Your task to perform on an android device: empty trash in google photos Image 0: 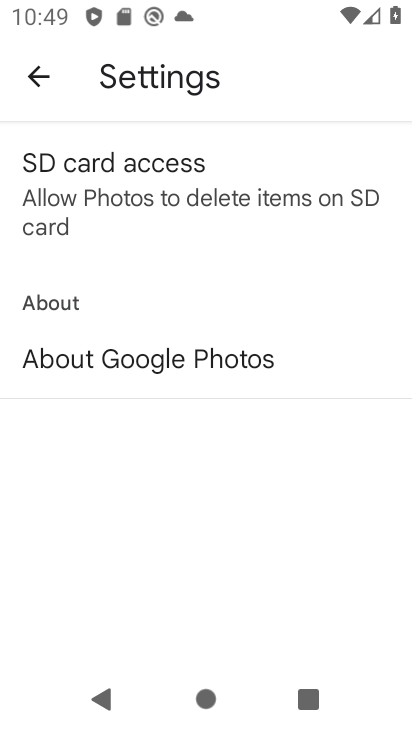
Step 0: press home button
Your task to perform on an android device: empty trash in google photos Image 1: 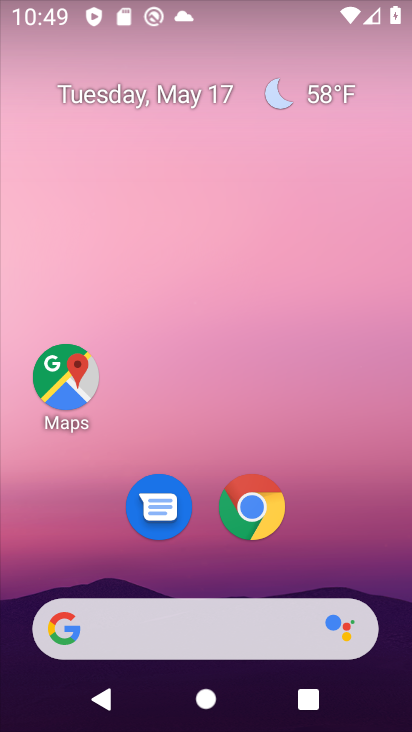
Step 1: drag from (297, 441) to (188, 63)
Your task to perform on an android device: empty trash in google photos Image 2: 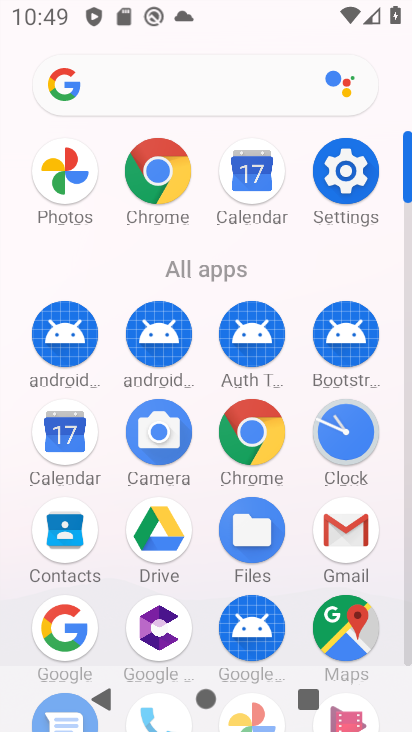
Step 2: click (63, 171)
Your task to perform on an android device: empty trash in google photos Image 3: 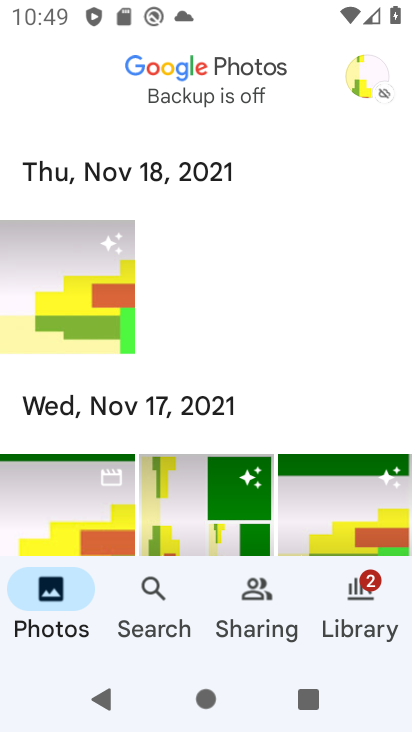
Step 3: click (347, 599)
Your task to perform on an android device: empty trash in google photos Image 4: 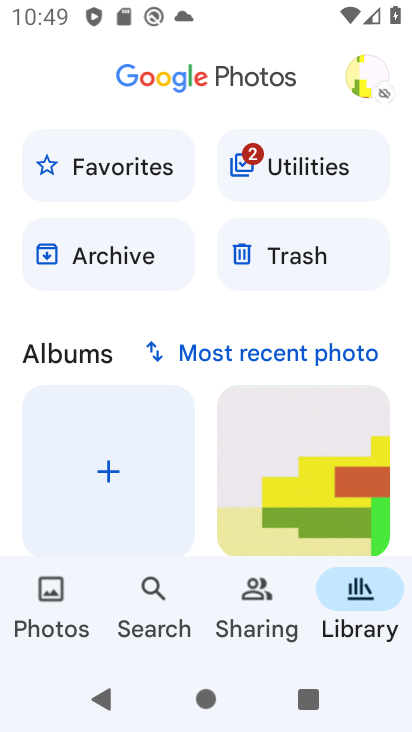
Step 4: click (276, 256)
Your task to perform on an android device: empty trash in google photos Image 5: 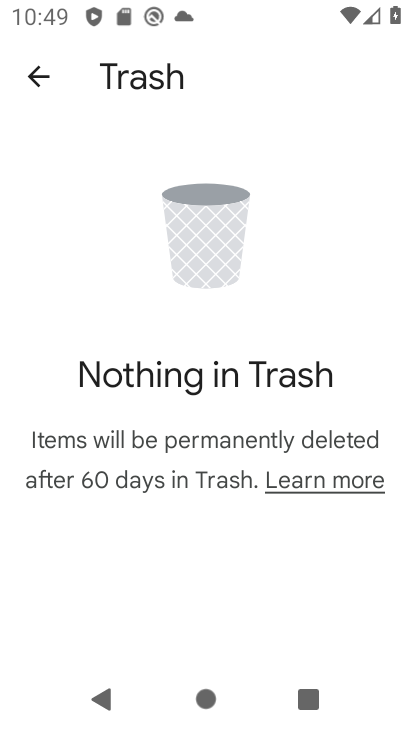
Step 5: task complete